Your task to perform on an android device: change the clock display to show seconds Image 0: 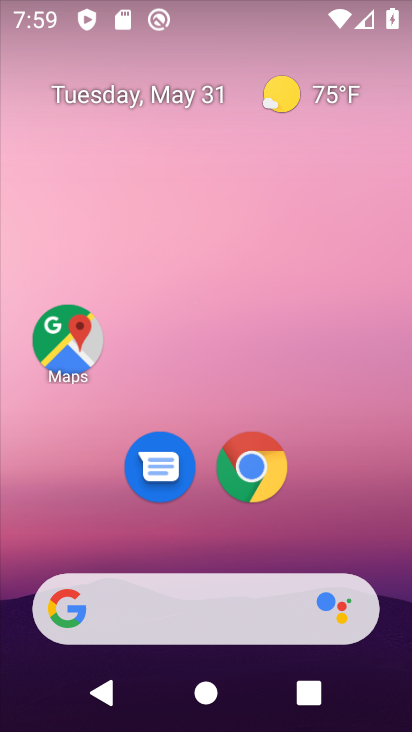
Step 0: drag from (206, 453) to (261, 105)
Your task to perform on an android device: change the clock display to show seconds Image 1: 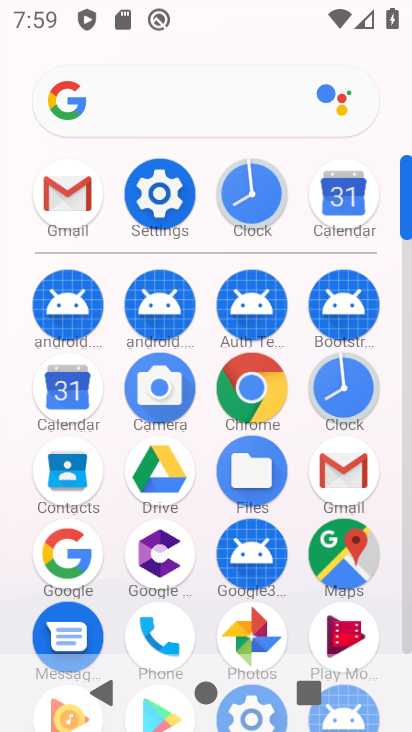
Step 1: click (339, 381)
Your task to perform on an android device: change the clock display to show seconds Image 2: 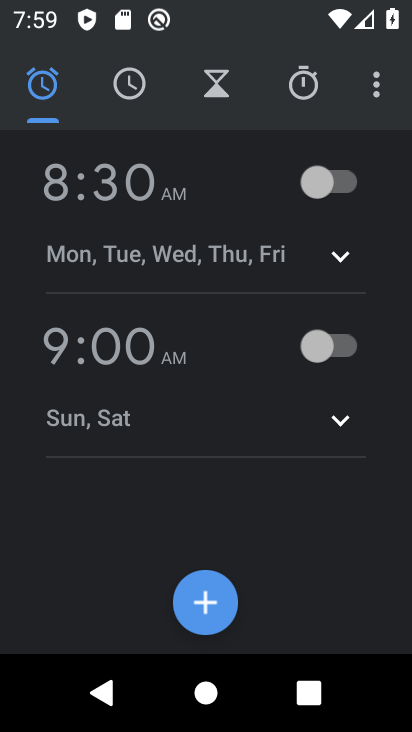
Step 2: click (377, 92)
Your task to perform on an android device: change the clock display to show seconds Image 3: 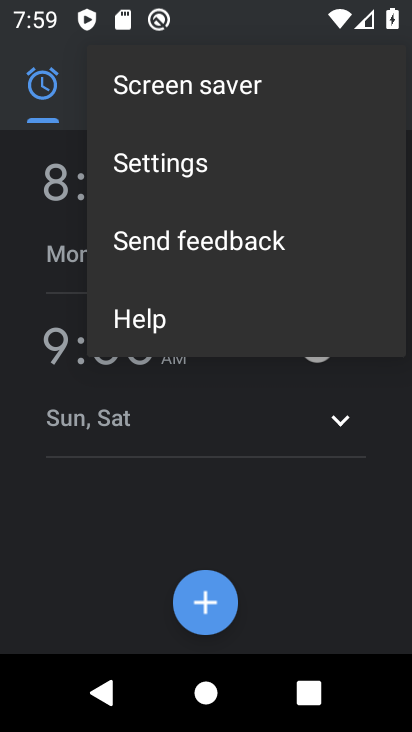
Step 3: click (183, 180)
Your task to perform on an android device: change the clock display to show seconds Image 4: 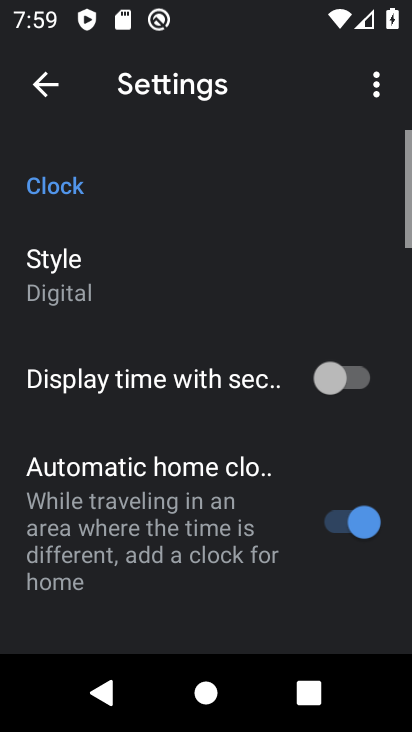
Step 4: drag from (237, 508) to (258, 128)
Your task to perform on an android device: change the clock display to show seconds Image 5: 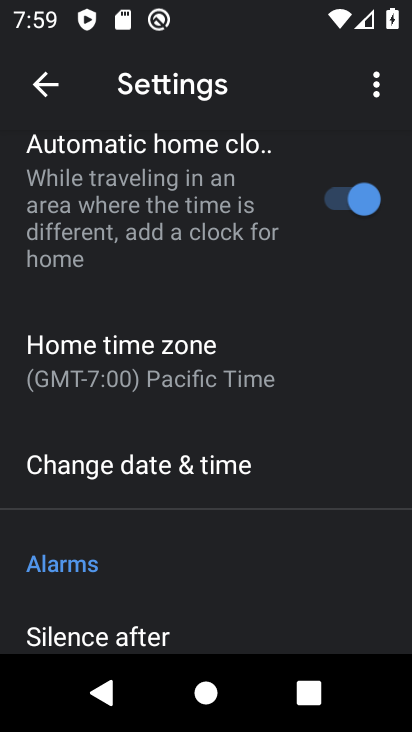
Step 5: drag from (254, 154) to (255, 549)
Your task to perform on an android device: change the clock display to show seconds Image 6: 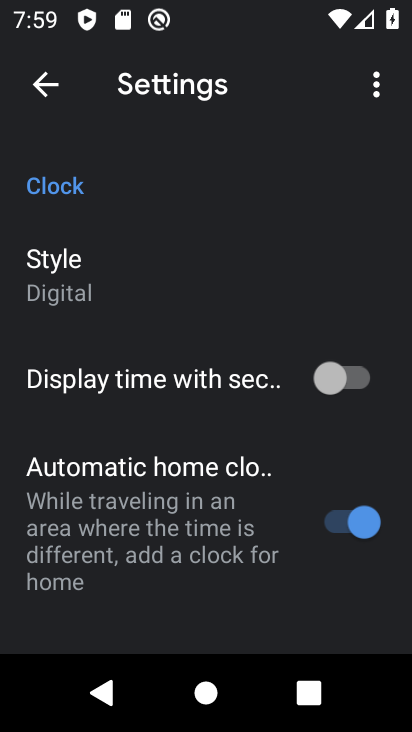
Step 6: click (335, 381)
Your task to perform on an android device: change the clock display to show seconds Image 7: 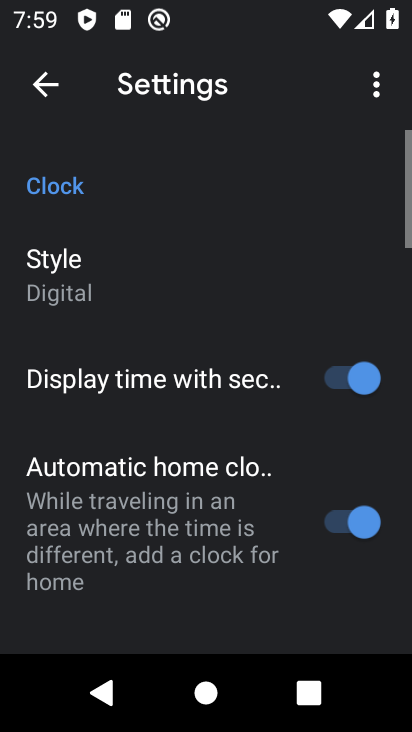
Step 7: task complete